Your task to perform on an android device: Open Youtube and go to the subscriptions tab Image 0: 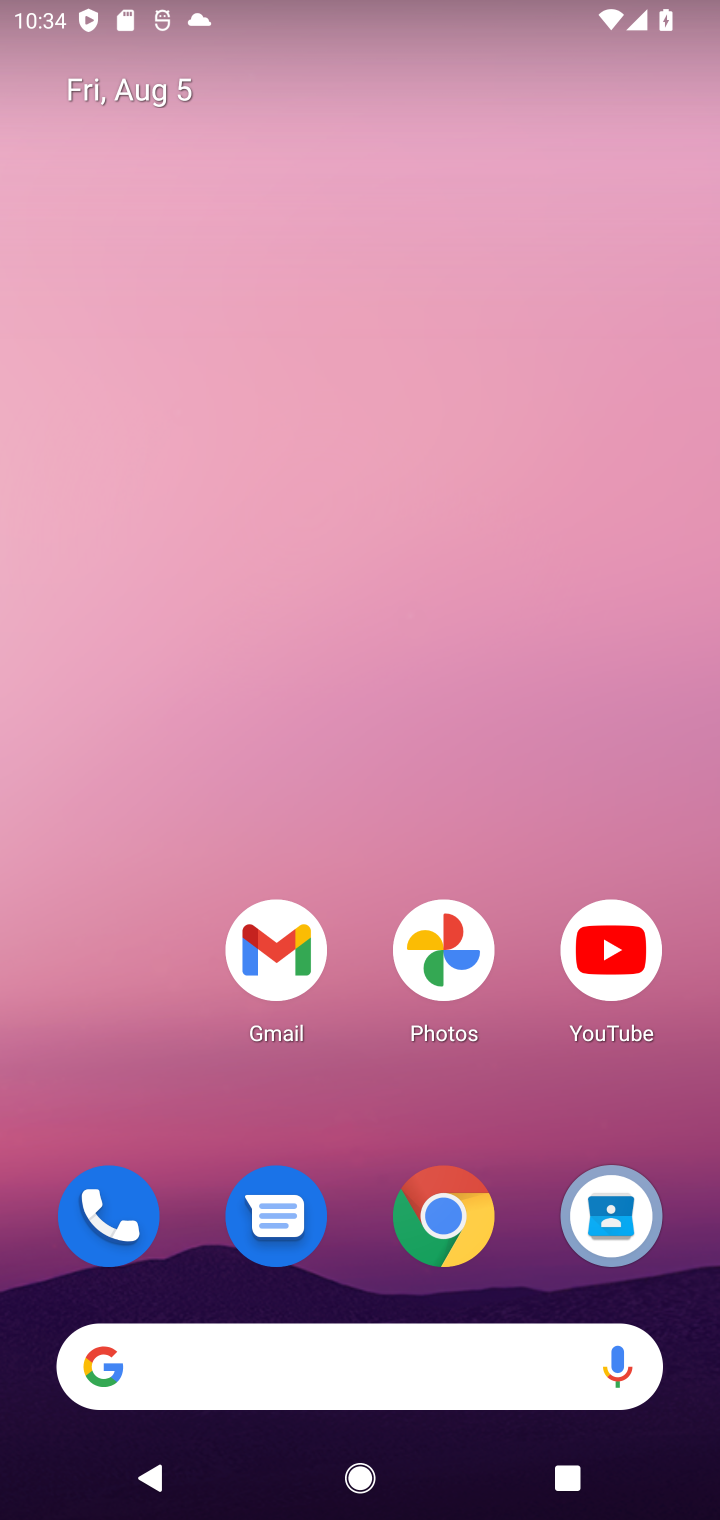
Step 0: drag from (306, 1366) to (261, 723)
Your task to perform on an android device: Open Youtube and go to the subscriptions tab Image 1: 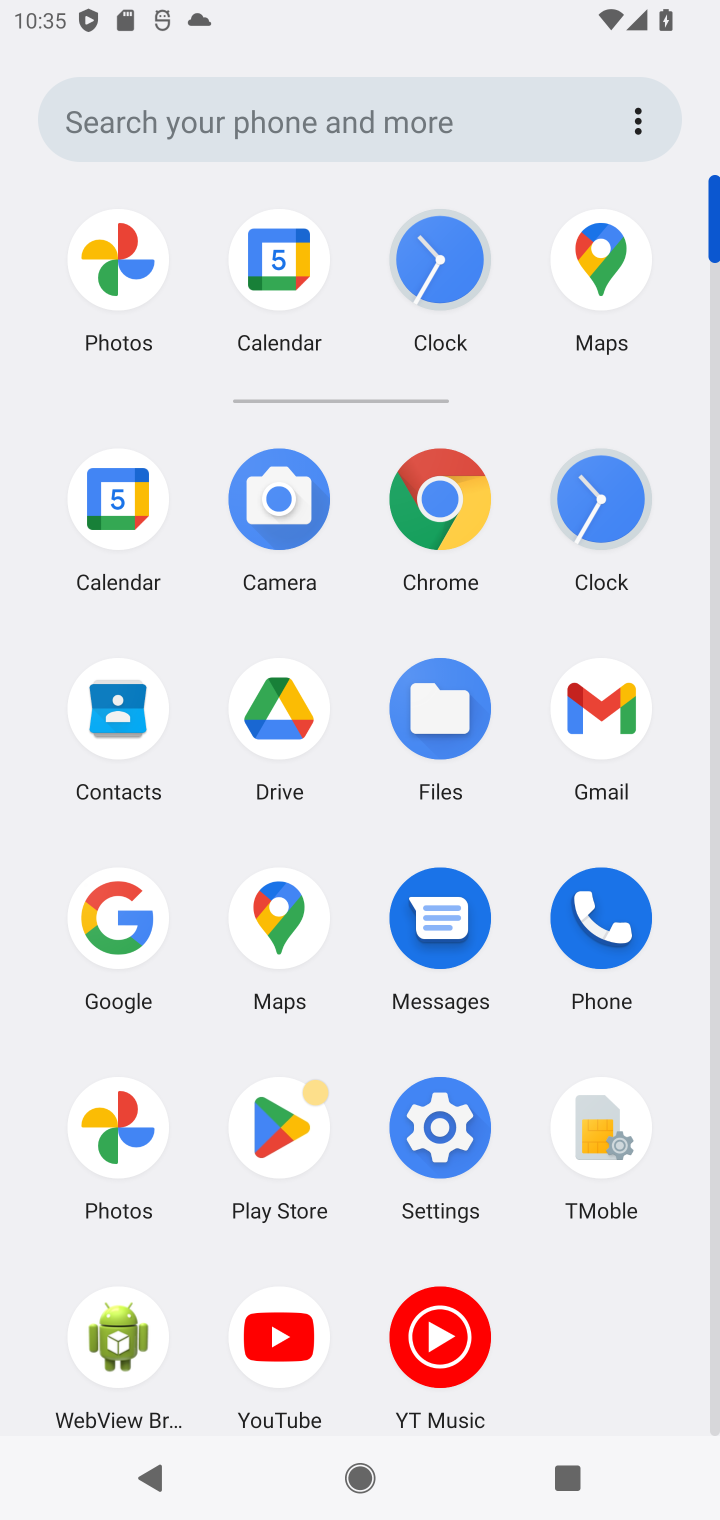
Step 1: click (304, 1318)
Your task to perform on an android device: Open Youtube and go to the subscriptions tab Image 2: 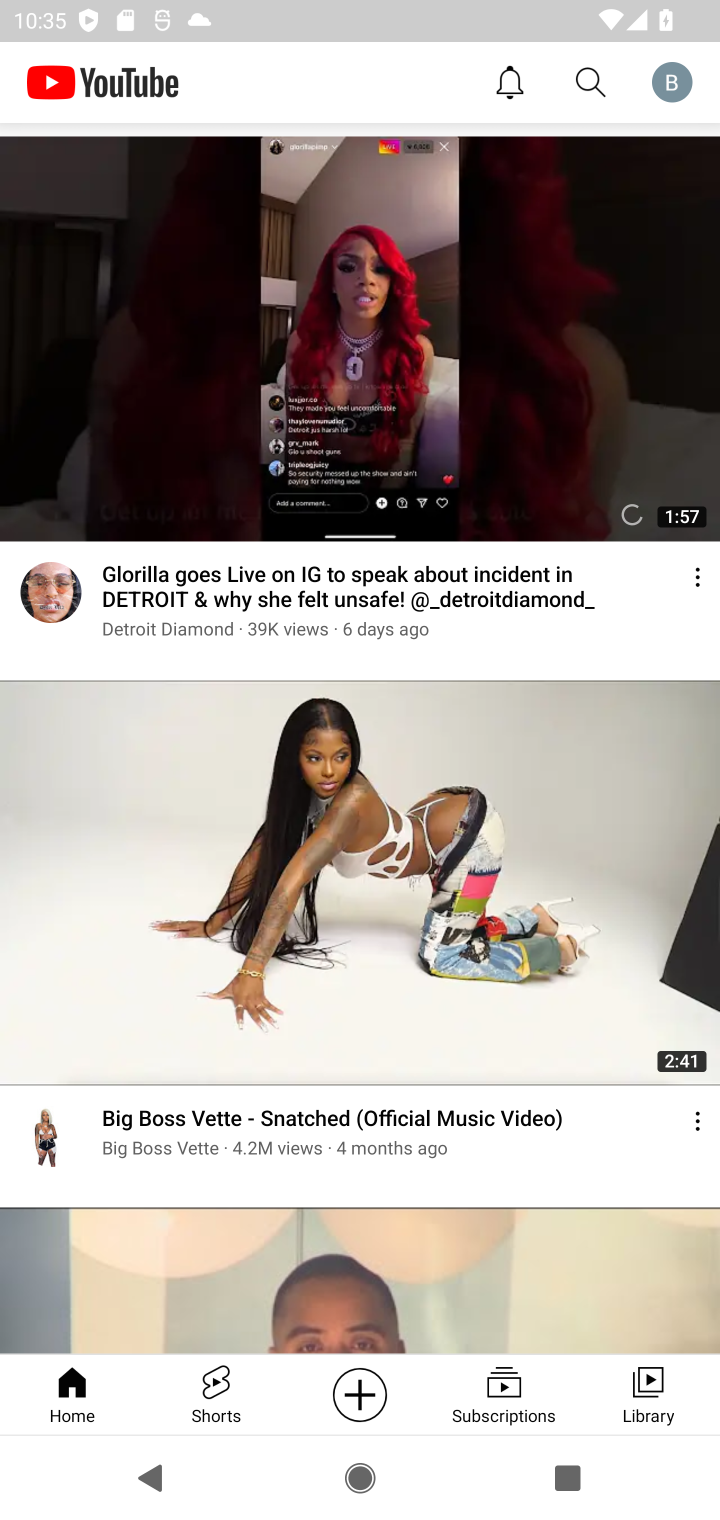
Step 2: click (510, 1392)
Your task to perform on an android device: Open Youtube and go to the subscriptions tab Image 3: 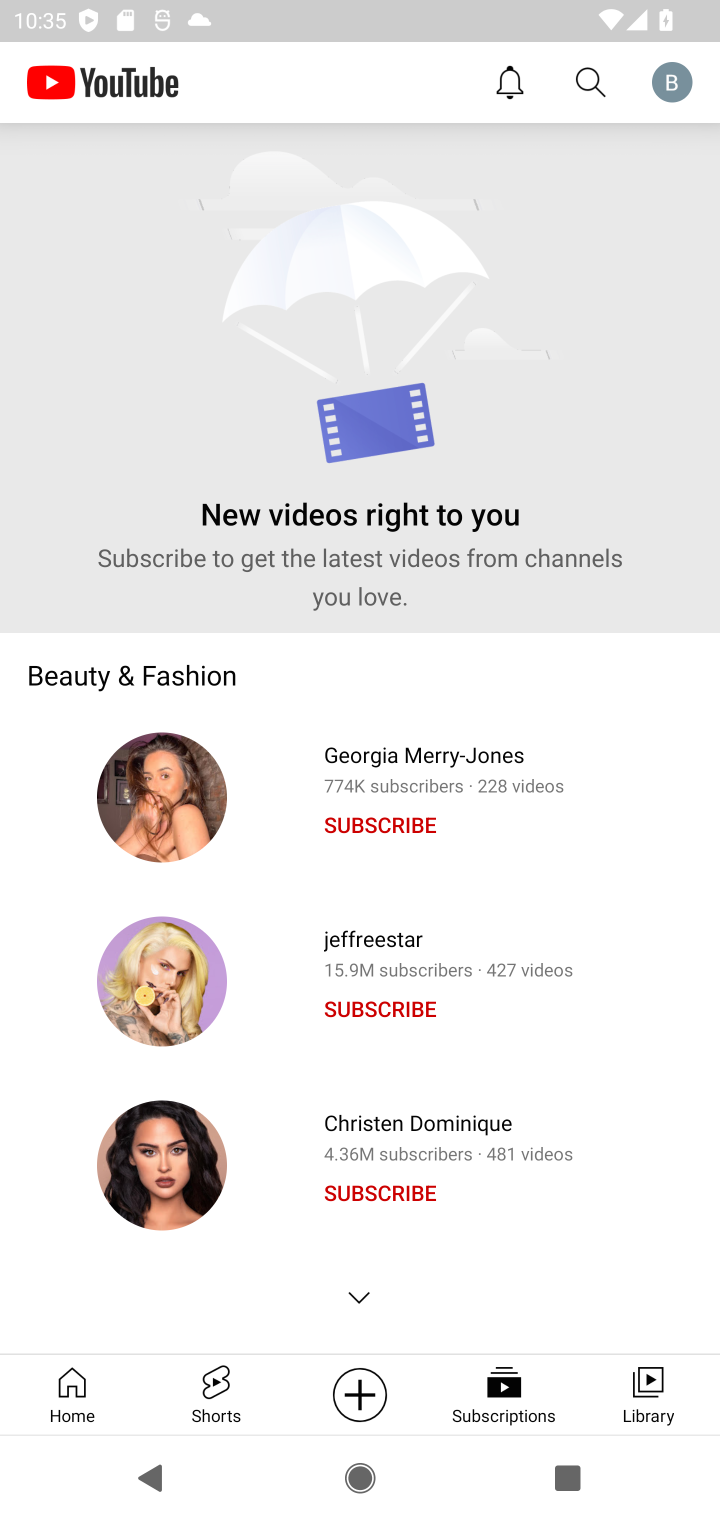
Step 3: task complete